Your task to perform on an android device: create a new album in the google photos Image 0: 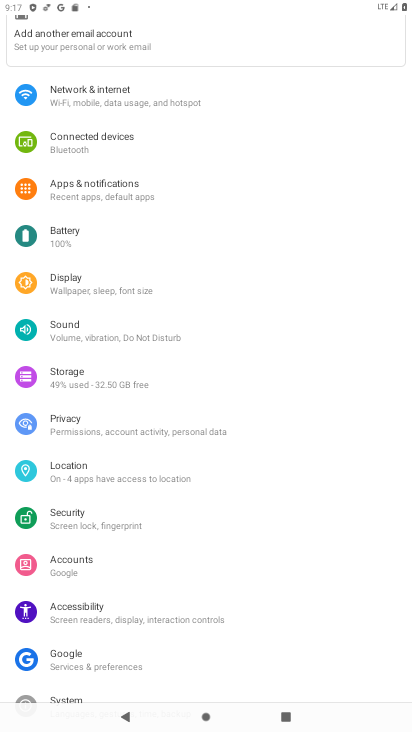
Step 0: press home button
Your task to perform on an android device: create a new album in the google photos Image 1: 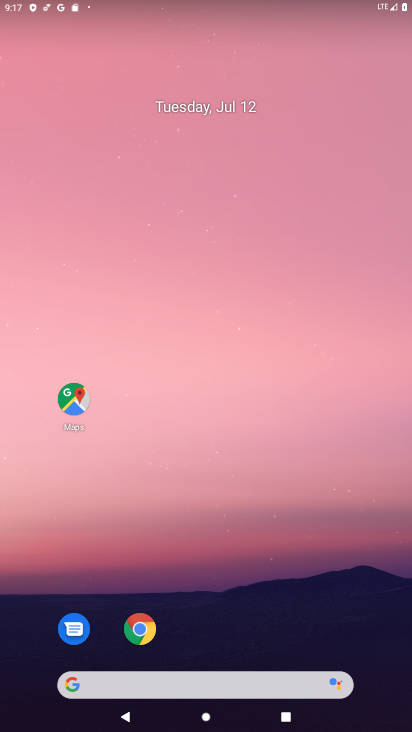
Step 1: drag from (266, 620) to (170, 145)
Your task to perform on an android device: create a new album in the google photos Image 2: 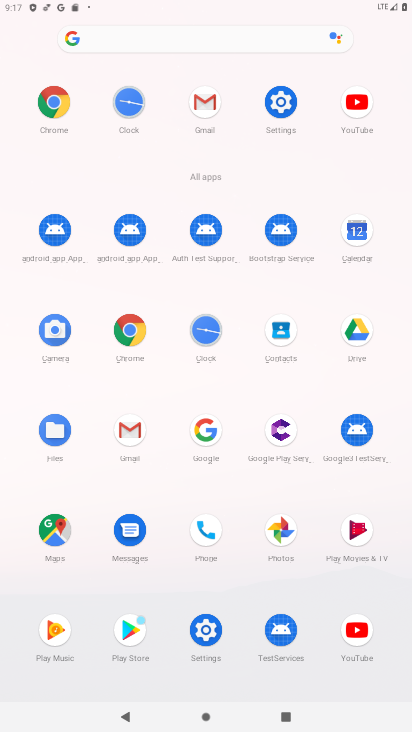
Step 2: click (294, 543)
Your task to perform on an android device: create a new album in the google photos Image 3: 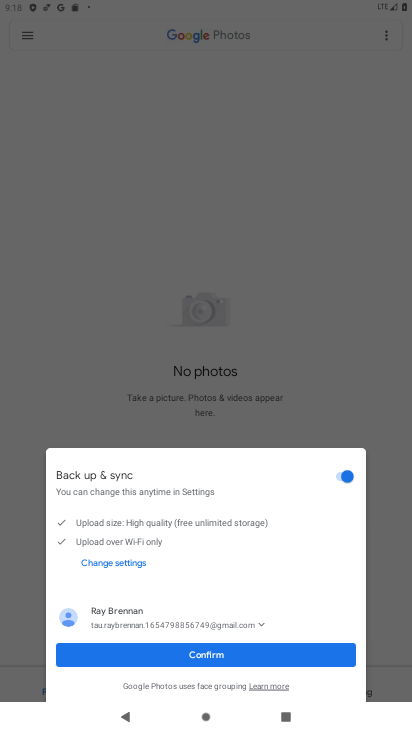
Step 3: click (310, 653)
Your task to perform on an android device: create a new album in the google photos Image 4: 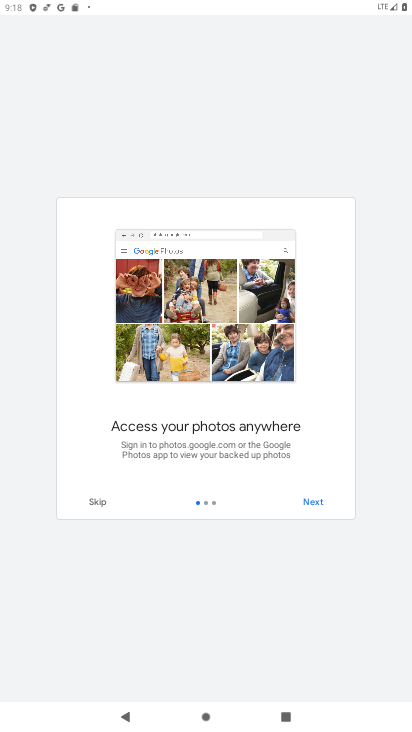
Step 4: click (99, 501)
Your task to perform on an android device: create a new album in the google photos Image 5: 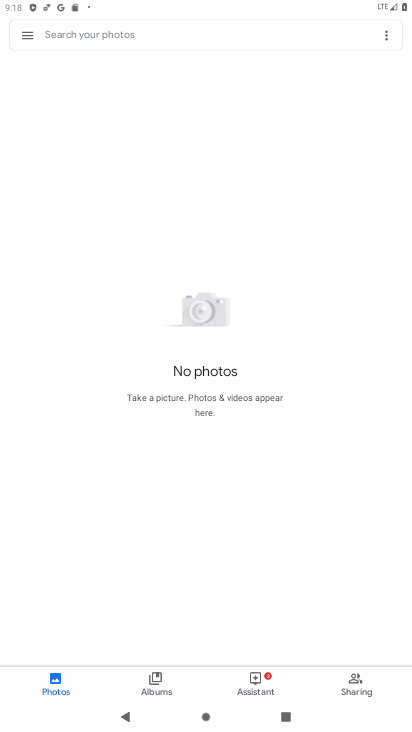
Step 5: click (167, 686)
Your task to perform on an android device: create a new album in the google photos Image 6: 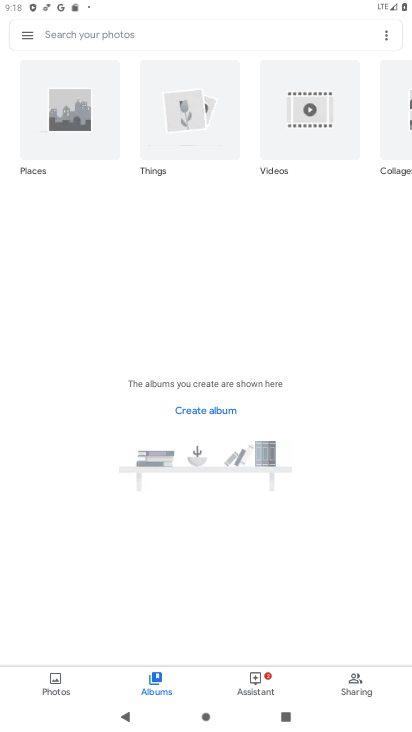
Step 6: click (201, 410)
Your task to perform on an android device: create a new album in the google photos Image 7: 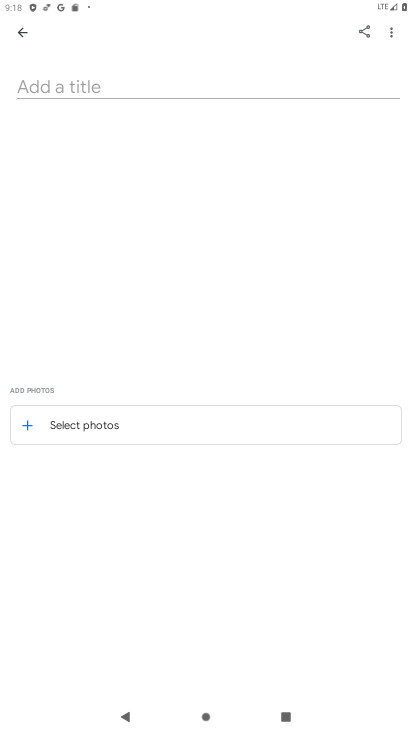
Step 7: click (130, 82)
Your task to perform on an android device: create a new album in the google photos Image 8: 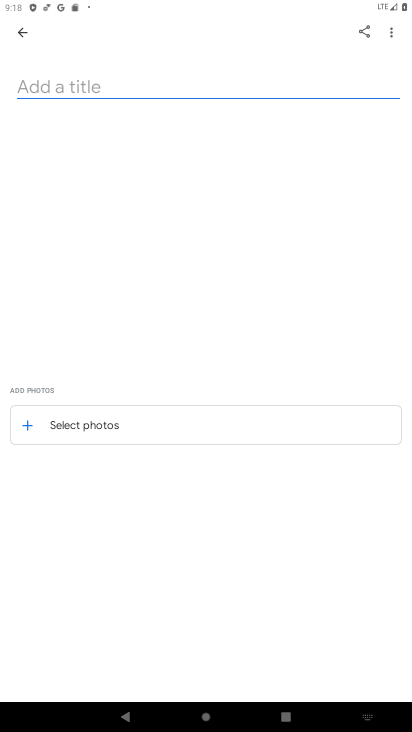
Step 8: type "bkjbkjb"
Your task to perform on an android device: create a new album in the google photos Image 9: 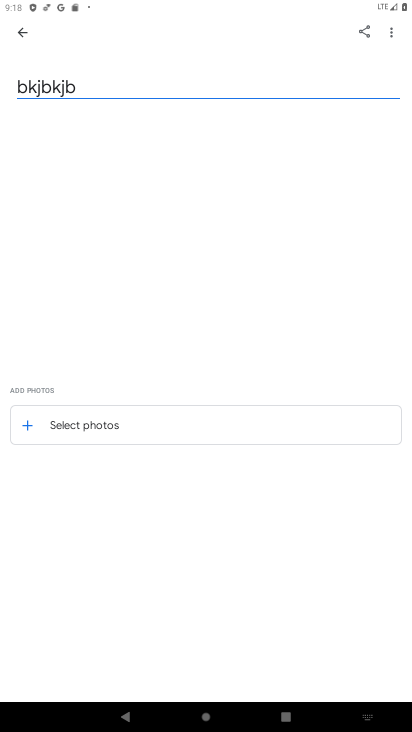
Step 9: click (113, 427)
Your task to perform on an android device: create a new album in the google photos Image 10: 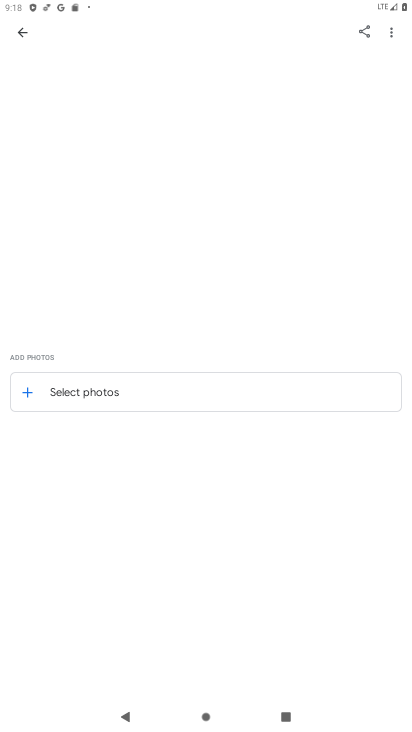
Step 10: click (120, 393)
Your task to perform on an android device: create a new album in the google photos Image 11: 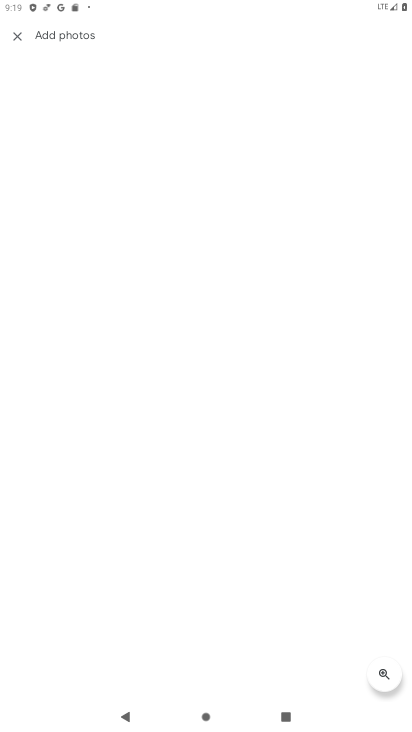
Step 11: task complete